Your task to perform on an android device: find photos in the google photos app Image 0: 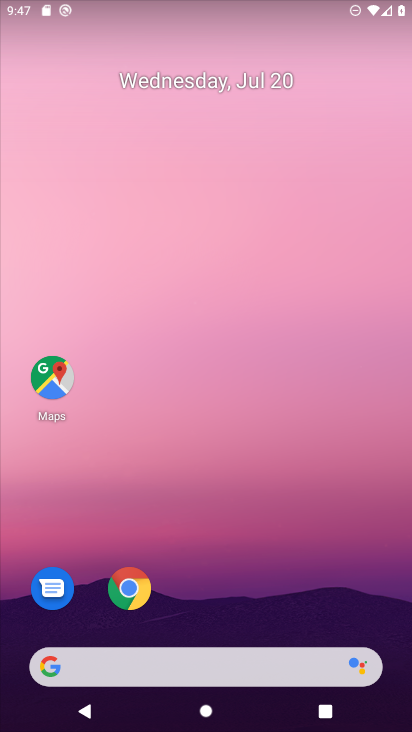
Step 0: drag from (261, 600) to (217, 305)
Your task to perform on an android device: find photos in the google photos app Image 1: 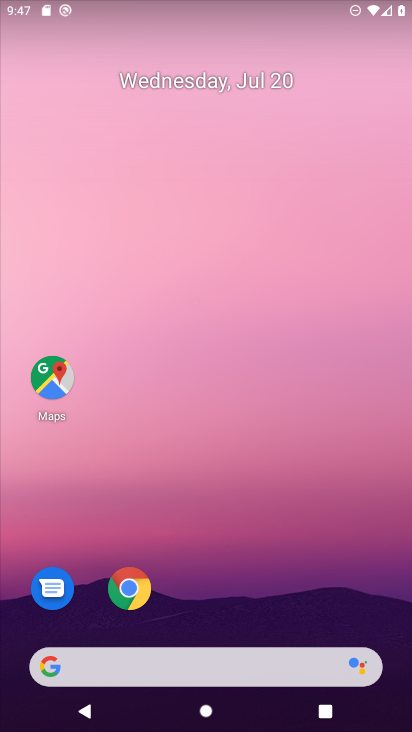
Step 1: drag from (195, 617) to (272, 19)
Your task to perform on an android device: find photos in the google photos app Image 2: 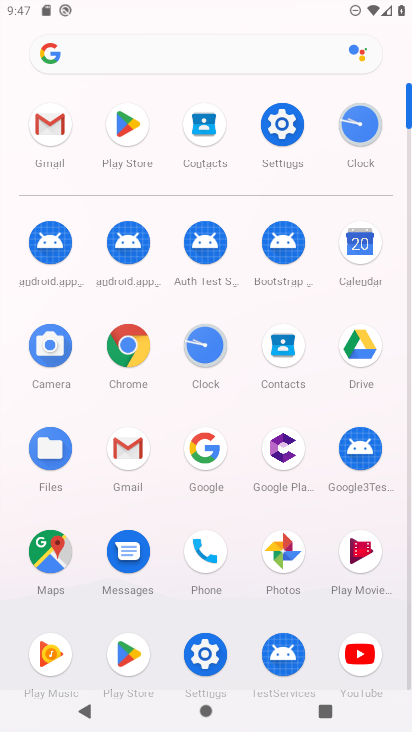
Step 2: click (272, 536)
Your task to perform on an android device: find photos in the google photos app Image 3: 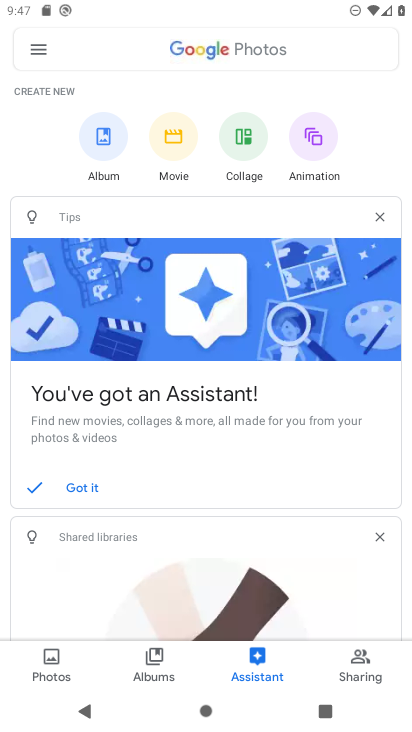
Step 3: click (43, 683)
Your task to perform on an android device: find photos in the google photos app Image 4: 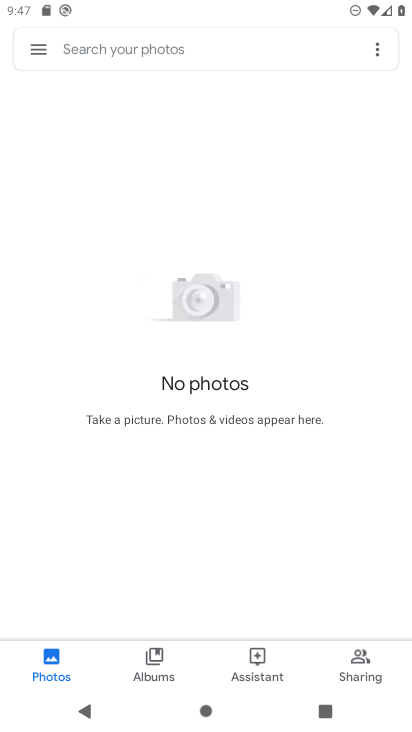
Step 4: task complete